Your task to perform on an android device: Turn on the flashlight Image 0: 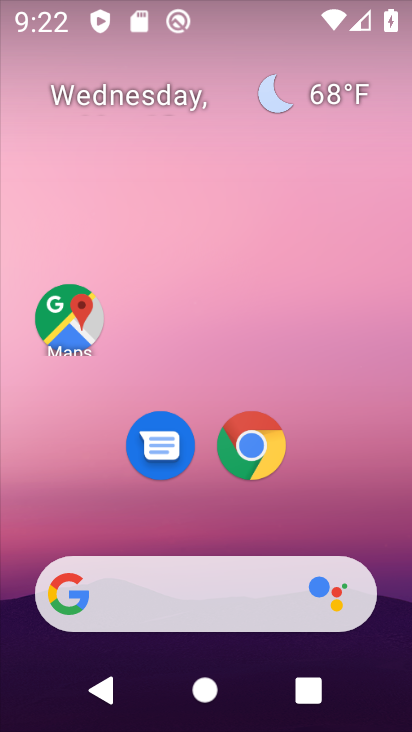
Step 0: drag from (370, 460) to (314, 64)
Your task to perform on an android device: Turn on the flashlight Image 1: 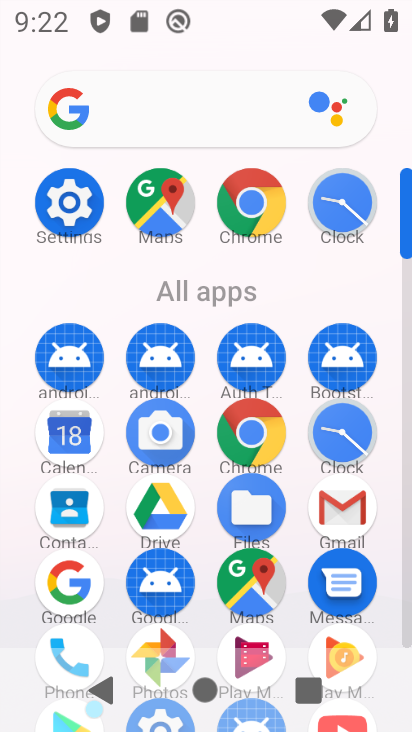
Step 1: click (54, 221)
Your task to perform on an android device: Turn on the flashlight Image 2: 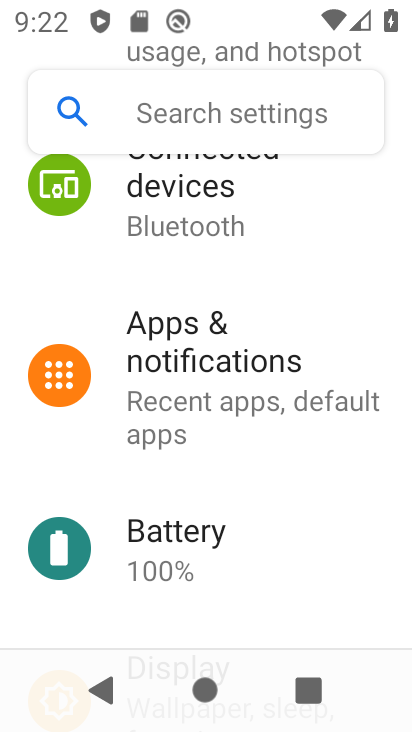
Step 2: task complete